Your task to perform on an android device: check out phone information Image 0: 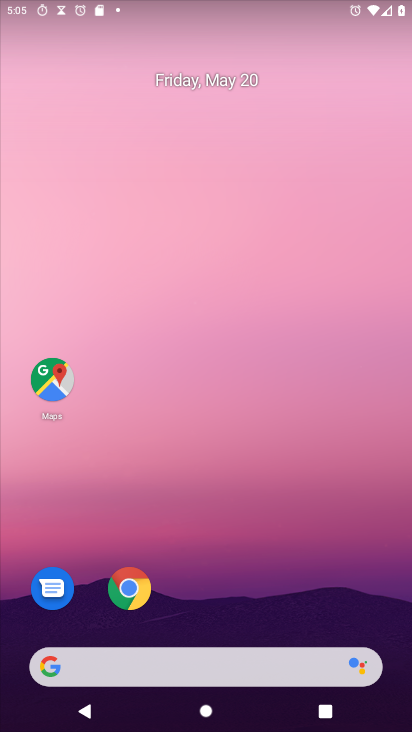
Step 0: drag from (216, 602) to (231, 120)
Your task to perform on an android device: check out phone information Image 1: 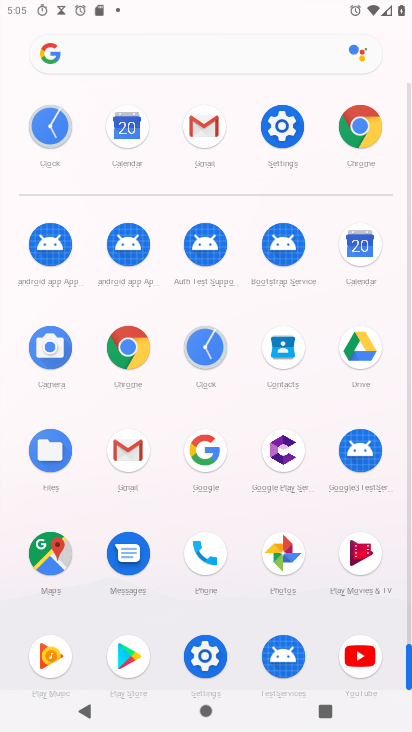
Step 1: click (204, 550)
Your task to perform on an android device: check out phone information Image 2: 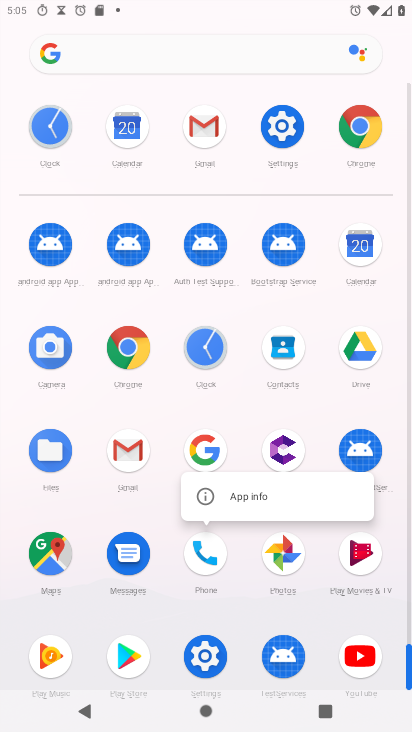
Step 2: click (233, 495)
Your task to perform on an android device: check out phone information Image 3: 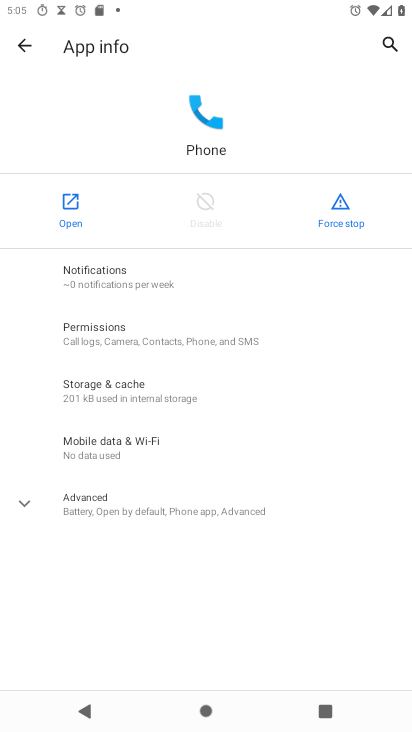
Step 3: task complete